Your task to perform on an android device: Go to settings Image 0: 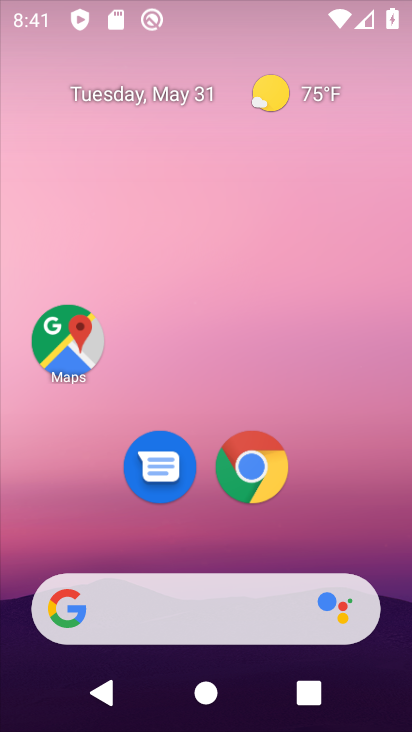
Step 0: drag from (211, 560) to (246, 181)
Your task to perform on an android device: Go to settings Image 1: 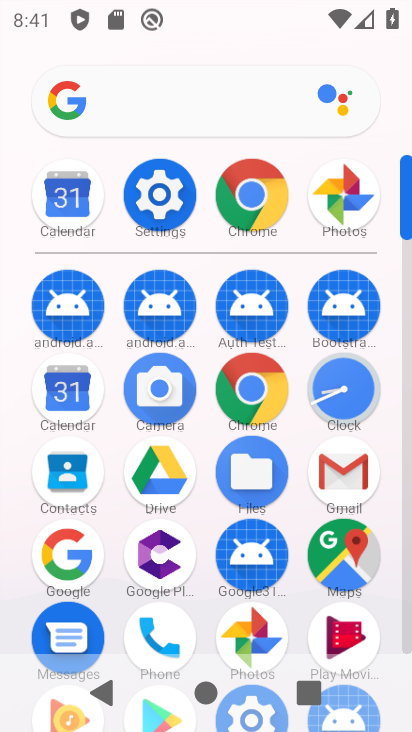
Step 1: click (166, 206)
Your task to perform on an android device: Go to settings Image 2: 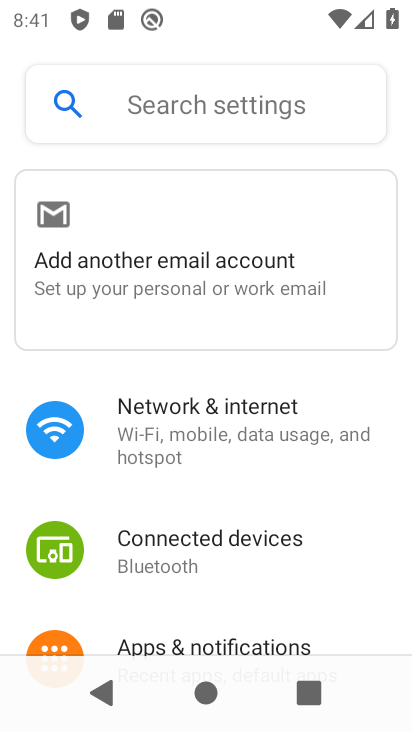
Step 2: task complete